Your task to perform on an android device: toggle priority inbox in the gmail app Image 0: 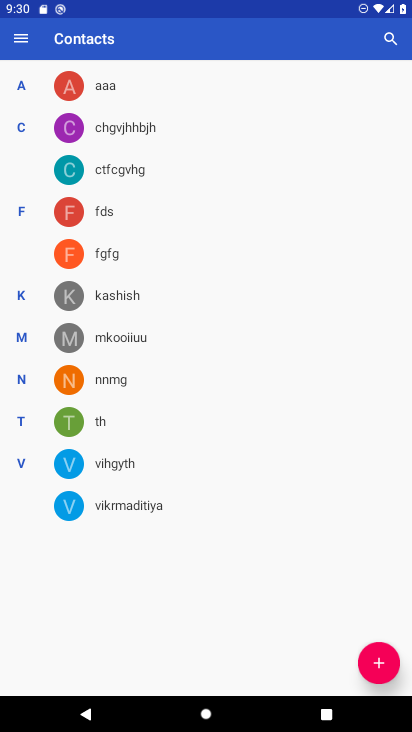
Step 0: press home button
Your task to perform on an android device: toggle priority inbox in the gmail app Image 1: 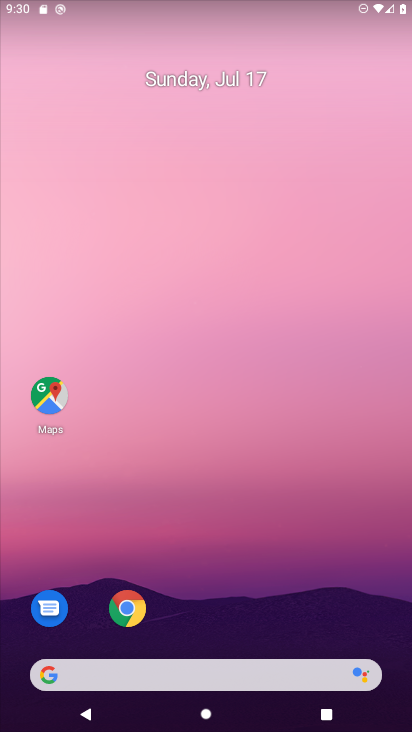
Step 1: drag from (179, 680) to (254, 207)
Your task to perform on an android device: toggle priority inbox in the gmail app Image 2: 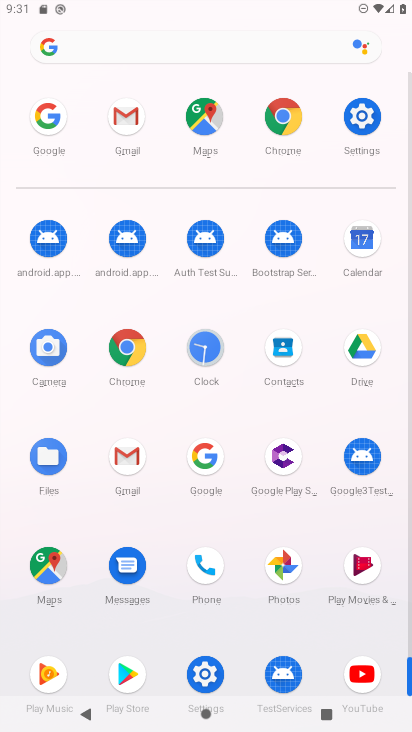
Step 2: click (125, 458)
Your task to perform on an android device: toggle priority inbox in the gmail app Image 3: 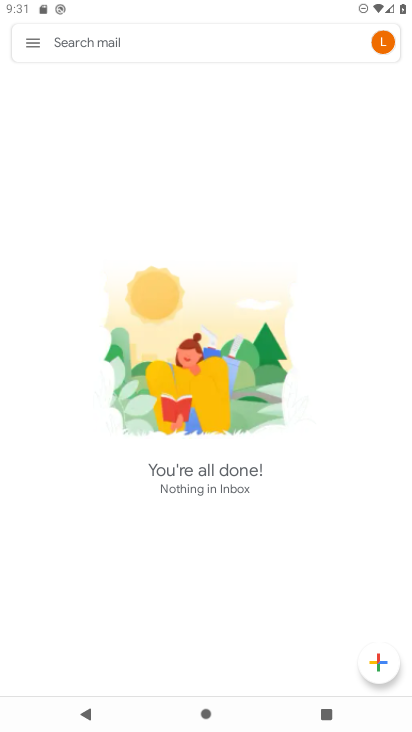
Step 3: click (32, 43)
Your task to perform on an android device: toggle priority inbox in the gmail app Image 4: 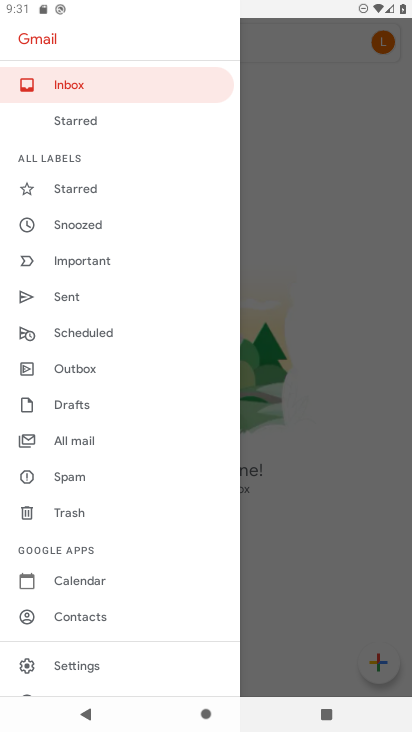
Step 4: click (84, 665)
Your task to perform on an android device: toggle priority inbox in the gmail app Image 5: 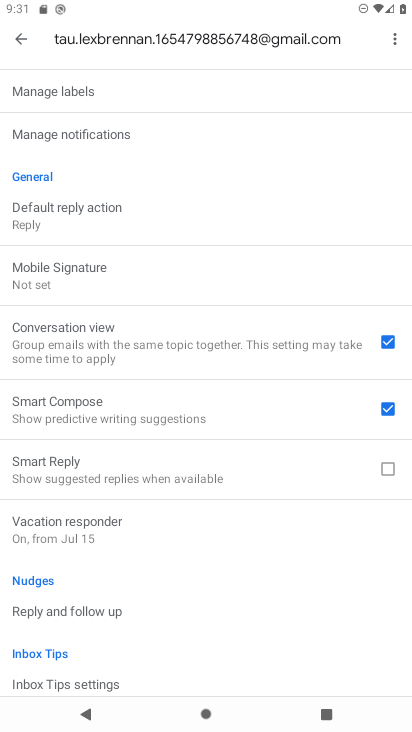
Step 5: drag from (100, 185) to (119, 354)
Your task to perform on an android device: toggle priority inbox in the gmail app Image 6: 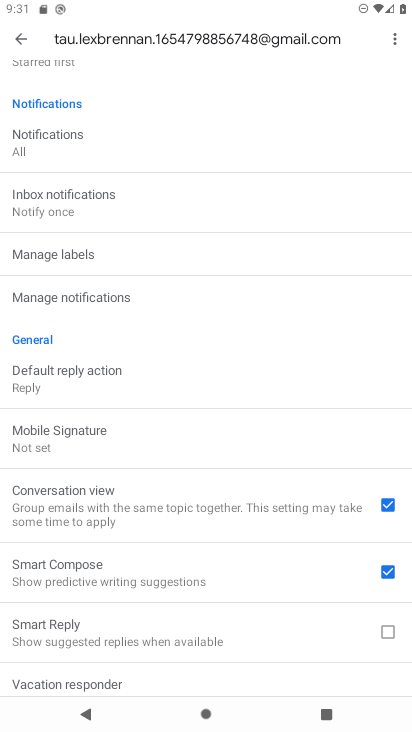
Step 6: drag from (116, 177) to (132, 373)
Your task to perform on an android device: toggle priority inbox in the gmail app Image 7: 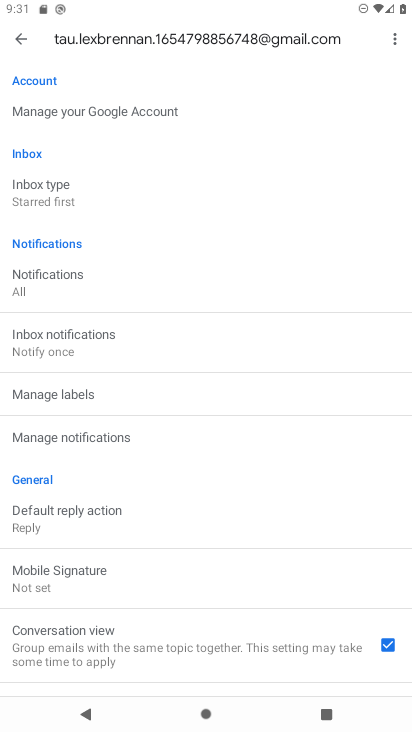
Step 7: click (50, 202)
Your task to perform on an android device: toggle priority inbox in the gmail app Image 8: 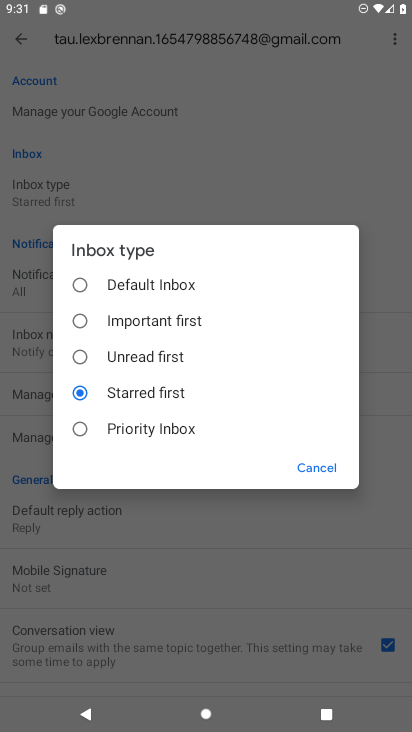
Step 8: click (80, 432)
Your task to perform on an android device: toggle priority inbox in the gmail app Image 9: 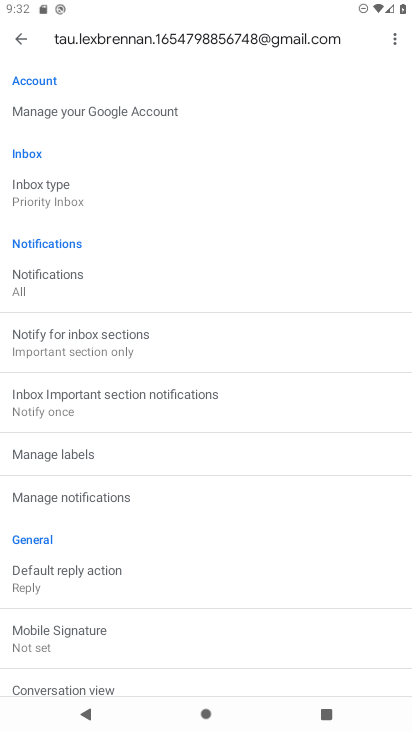
Step 9: task complete